Your task to perform on an android device: toggle location history Image 0: 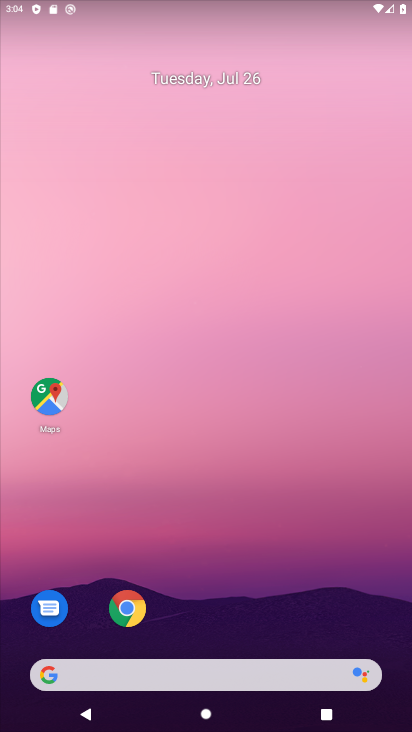
Step 0: drag from (214, 622) to (196, 52)
Your task to perform on an android device: toggle location history Image 1: 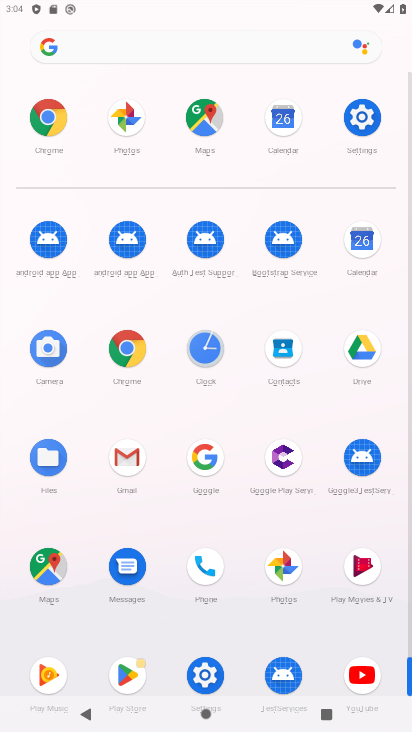
Step 1: click (206, 668)
Your task to perform on an android device: toggle location history Image 2: 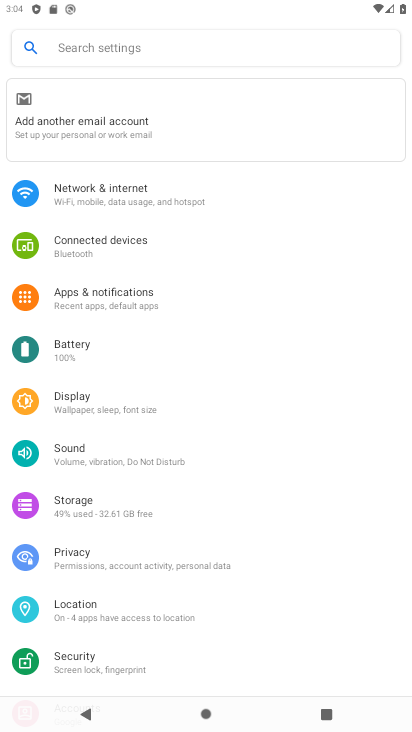
Step 2: click (139, 613)
Your task to perform on an android device: toggle location history Image 3: 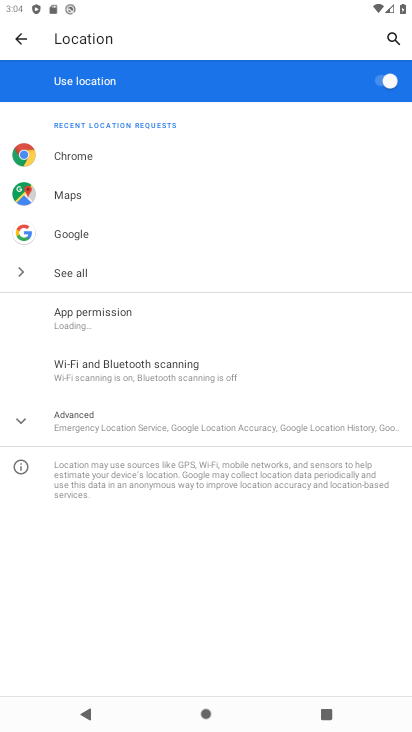
Step 3: click (139, 421)
Your task to perform on an android device: toggle location history Image 4: 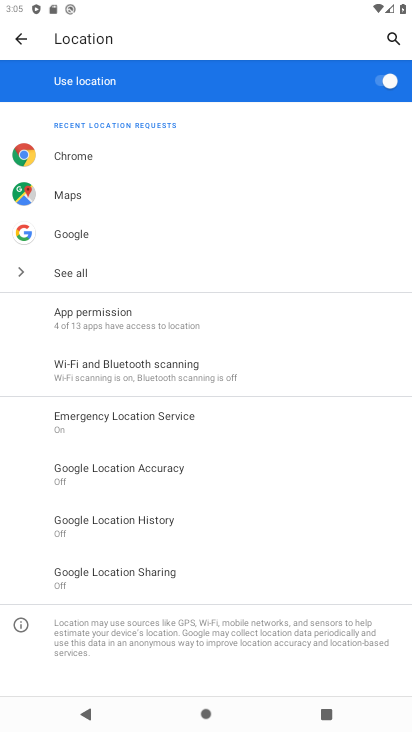
Step 4: click (141, 521)
Your task to perform on an android device: toggle location history Image 5: 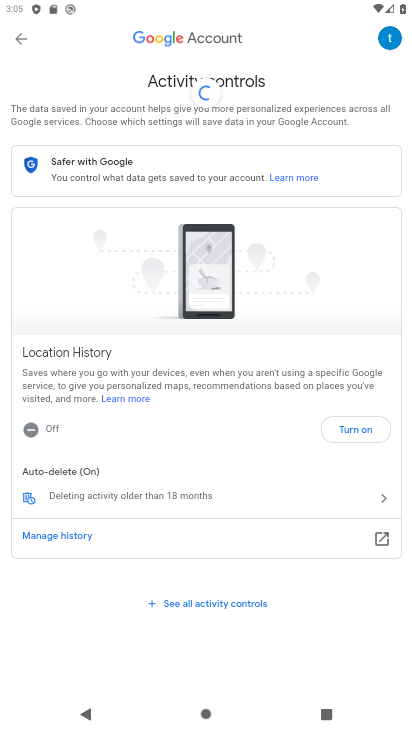
Step 5: click (362, 428)
Your task to perform on an android device: toggle location history Image 6: 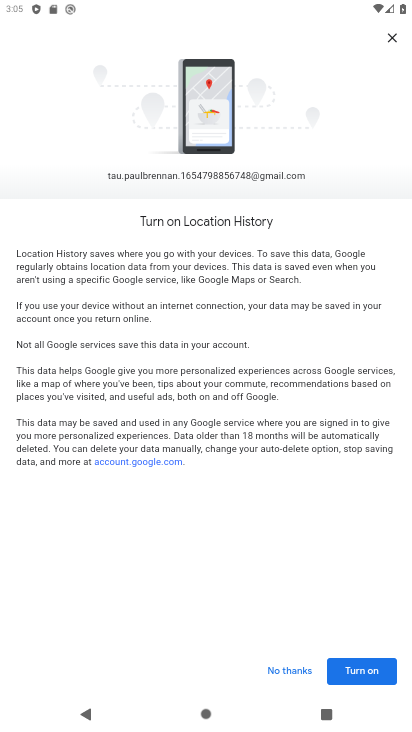
Step 6: click (369, 670)
Your task to perform on an android device: toggle location history Image 7: 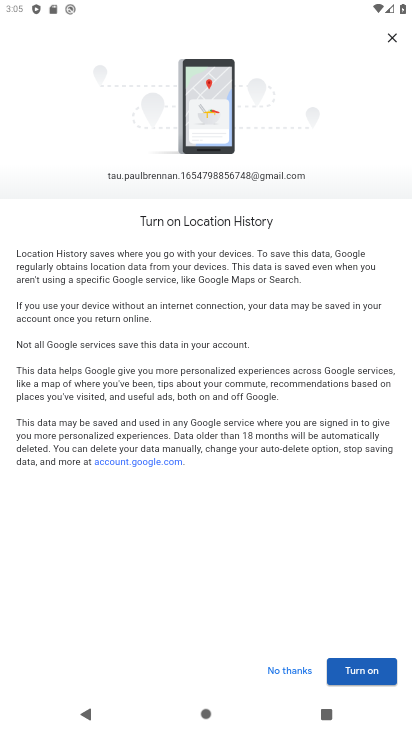
Step 7: click (355, 677)
Your task to perform on an android device: toggle location history Image 8: 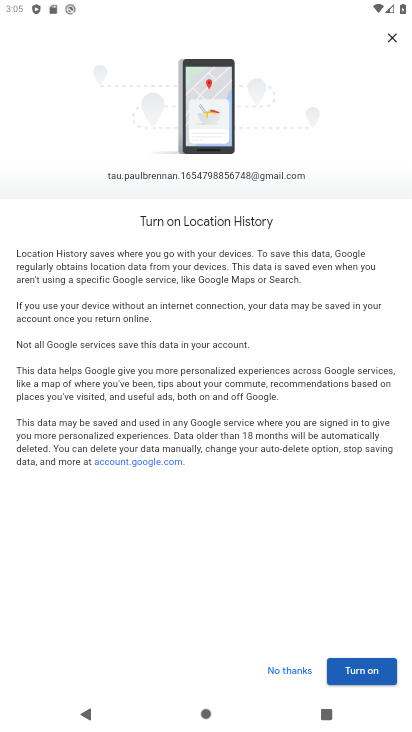
Step 8: click (369, 668)
Your task to perform on an android device: toggle location history Image 9: 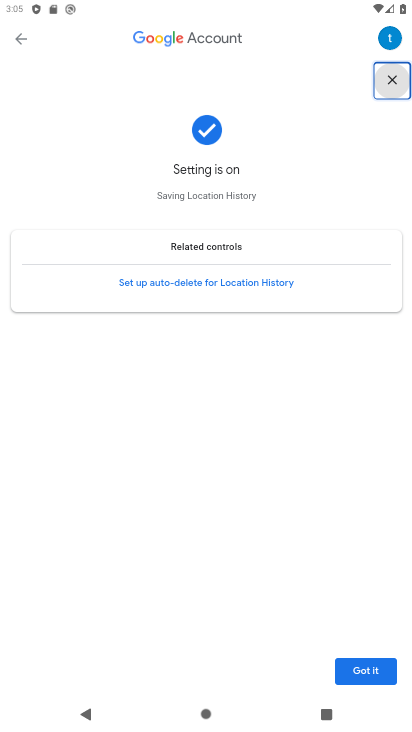
Step 9: click (371, 669)
Your task to perform on an android device: toggle location history Image 10: 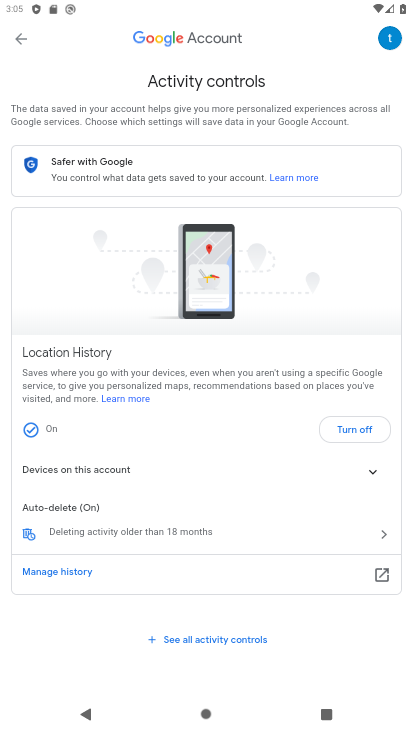
Step 10: task complete